Your task to perform on an android device: Go to accessibility settings Image 0: 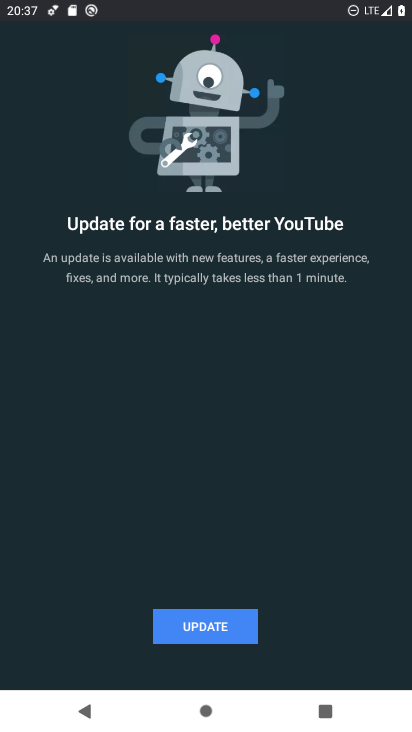
Step 0: press home button
Your task to perform on an android device: Go to accessibility settings Image 1: 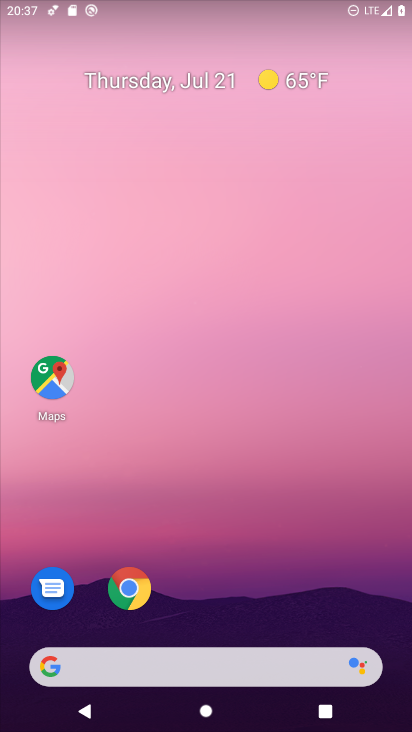
Step 1: drag from (203, 615) to (135, 33)
Your task to perform on an android device: Go to accessibility settings Image 2: 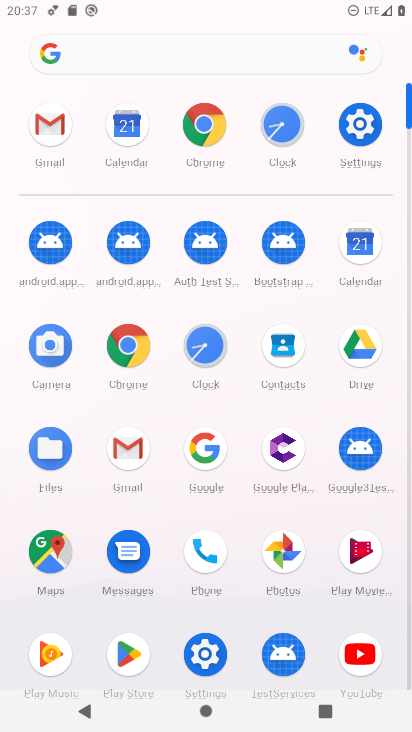
Step 2: click (382, 121)
Your task to perform on an android device: Go to accessibility settings Image 3: 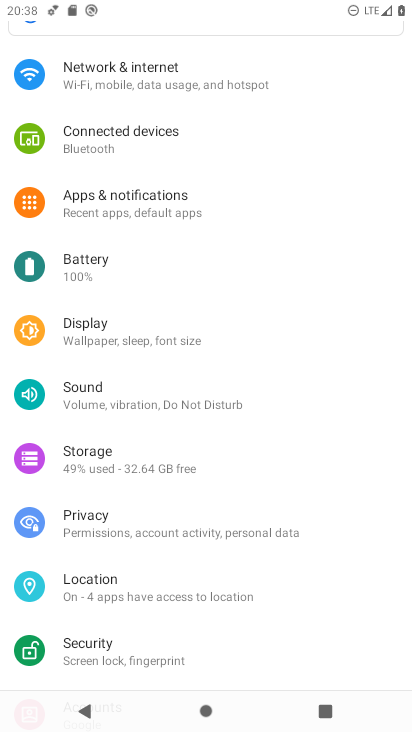
Step 3: drag from (141, 654) to (91, 133)
Your task to perform on an android device: Go to accessibility settings Image 4: 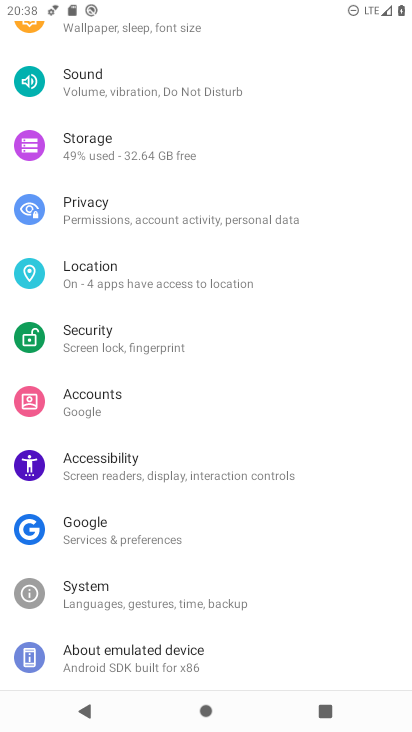
Step 4: click (110, 468)
Your task to perform on an android device: Go to accessibility settings Image 5: 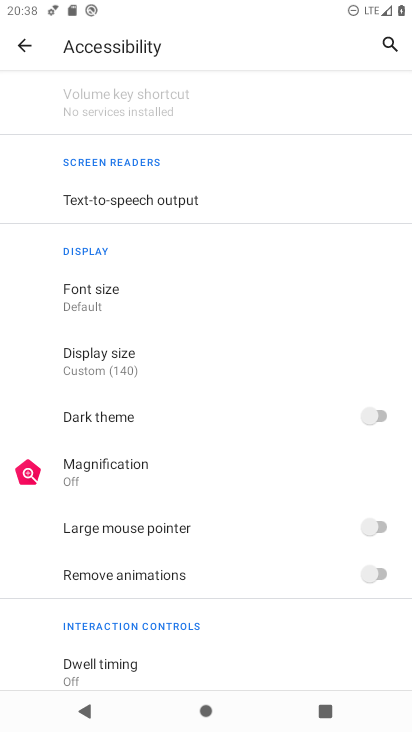
Step 5: task complete